Your task to perform on an android device: Open the web browser Image 0: 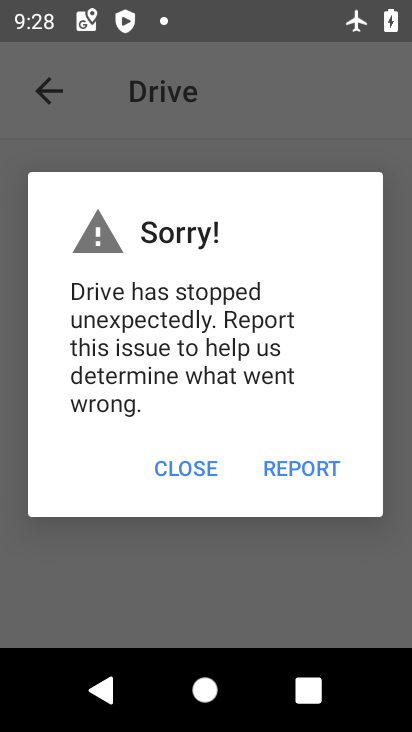
Step 0: press home button
Your task to perform on an android device: Open the web browser Image 1: 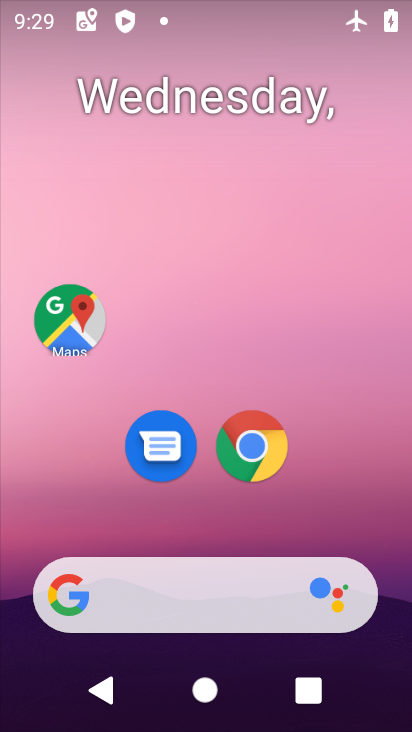
Step 1: click (252, 463)
Your task to perform on an android device: Open the web browser Image 2: 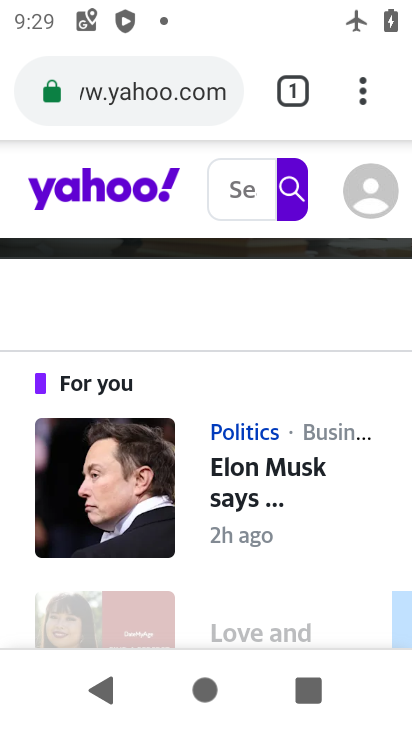
Step 2: task complete